Your task to perform on an android device: allow cookies in the chrome app Image 0: 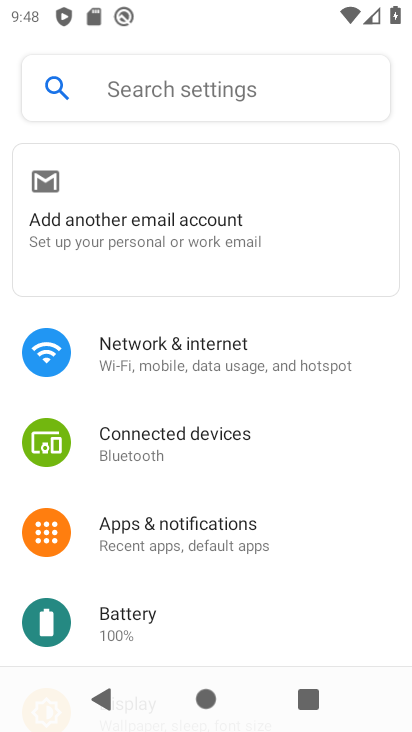
Step 0: press back button
Your task to perform on an android device: allow cookies in the chrome app Image 1: 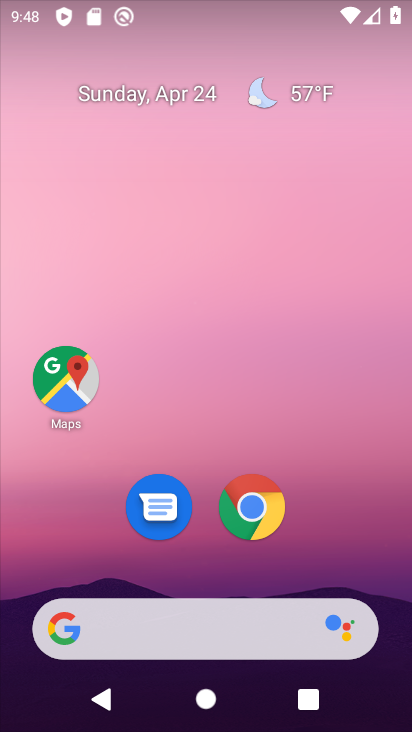
Step 1: click (278, 519)
Your task to perform on an android device: allow cookies in the chrome app Image 2: 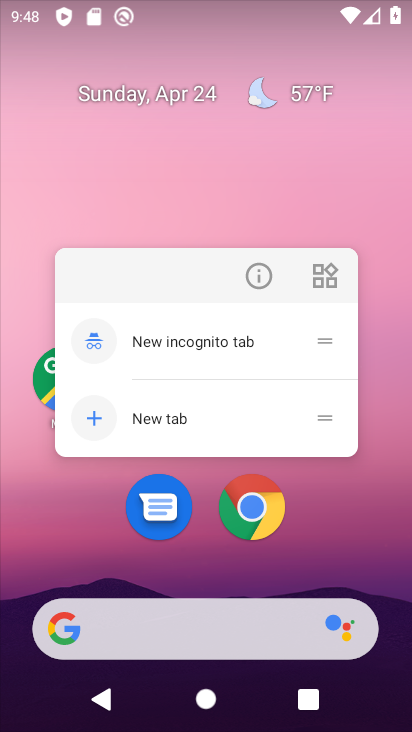
Step 2: click (278, 519)
Your task to perform on an android device: allow cookies in the chrome app Image 3: 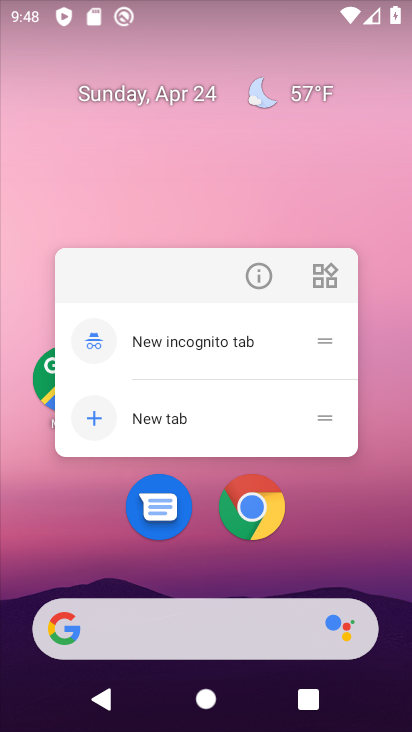
Step 3: click (268, 509)
Your task to perform on an android device: allow cookies in the chrome app Image 4: 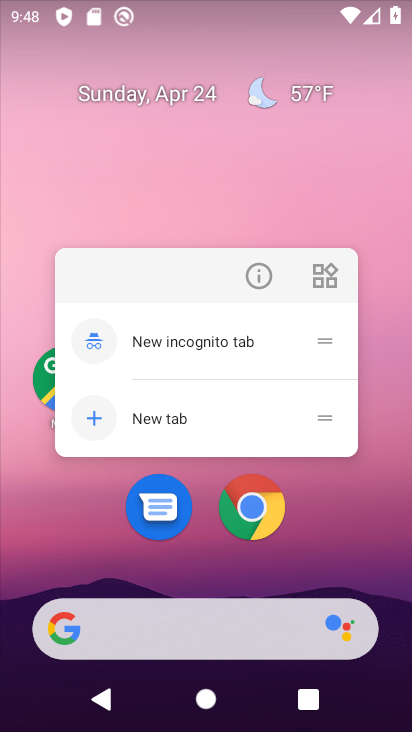
Step 4: click (259, 508)
Your task to perform on an android device: allow cookies in the chrome app Image 5: 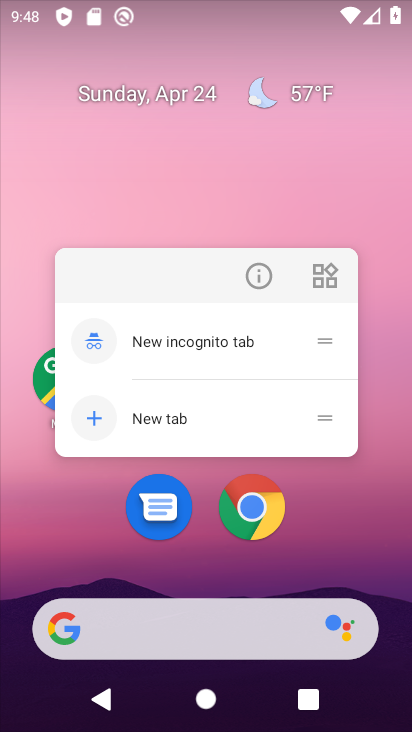
Step 5: click (261, 512)
Your task to perform on an android device: allow cookies in the chrome app Image 6: 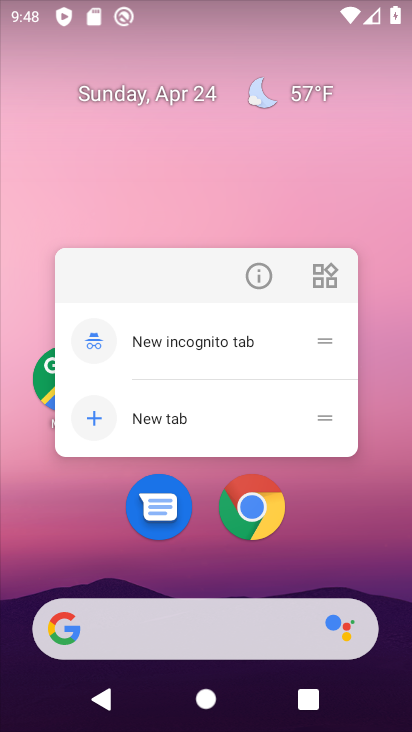
Step 6: click (267, 515)
Your task to perform on an android device: allow cookies in the chrome app Image 7: 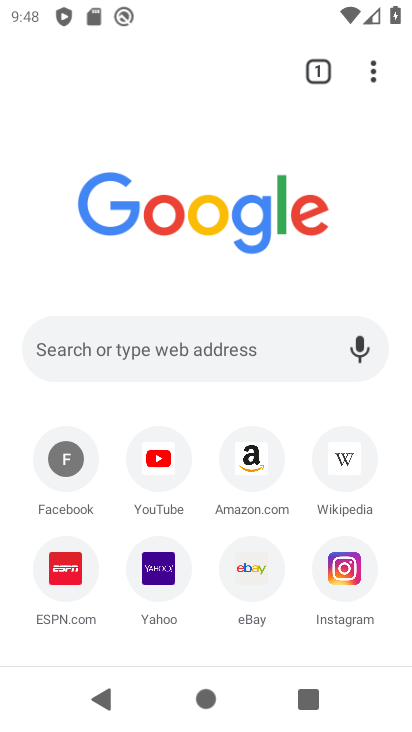
Step 7: drag from (384, 72) to (222, 507)
Your task to perform on an android device: allow cookies in the chrome app Image 8: 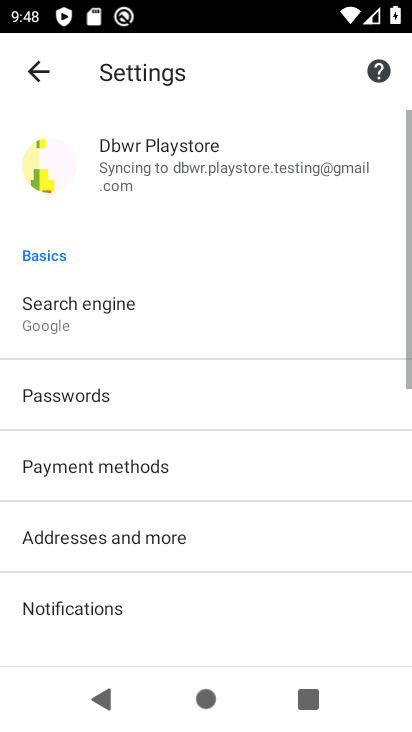
Step 8: drag from (122, 564) to (210, 189)
Your task to perform on an android device: allow cookies in the chrome app Image 9: 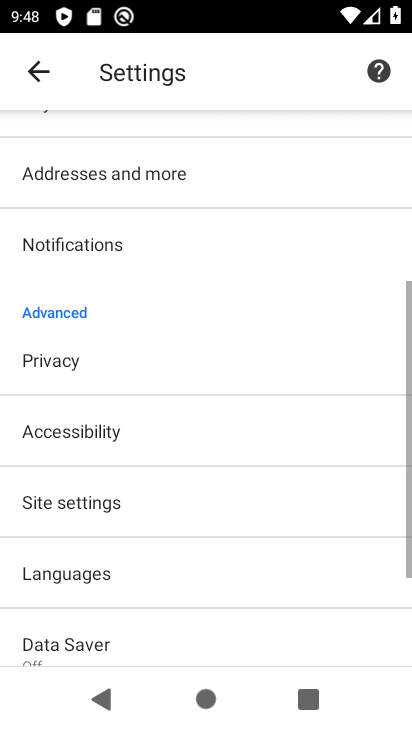
Step 9: drag from (139, 529) to (174, 347)
Your task to perform on an android device: allow cookies in the chrome app Image 10: 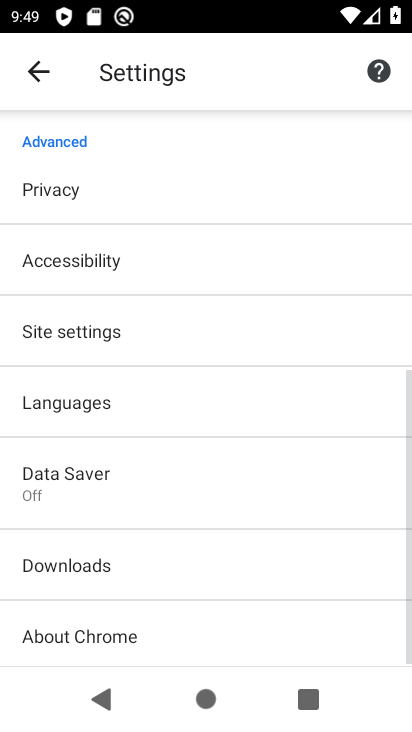
Step 10: click (138, 354)
Your task to perform on an android device: allow cookies in the chrome app Image 11: 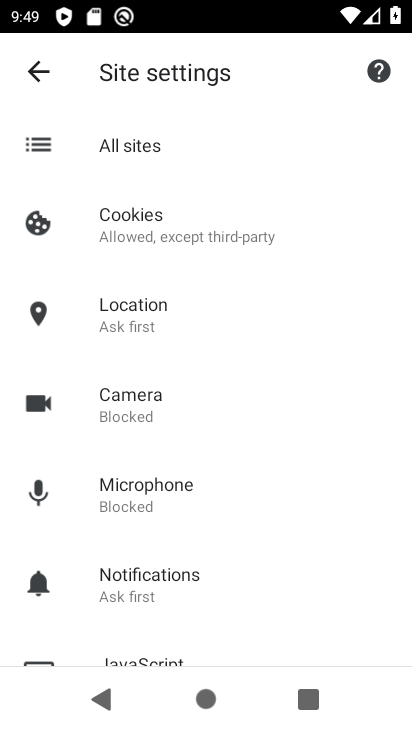
Step 11: click (224, 242)
Your task to perform on an android device: allow cookies in the chrome app Image 12: 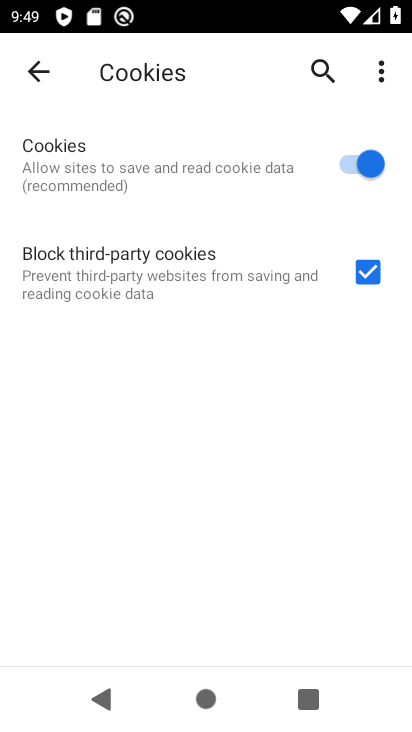
Step 12: task complete